Your task to perform on an android device: change notification settings in the gmail app Image 0: 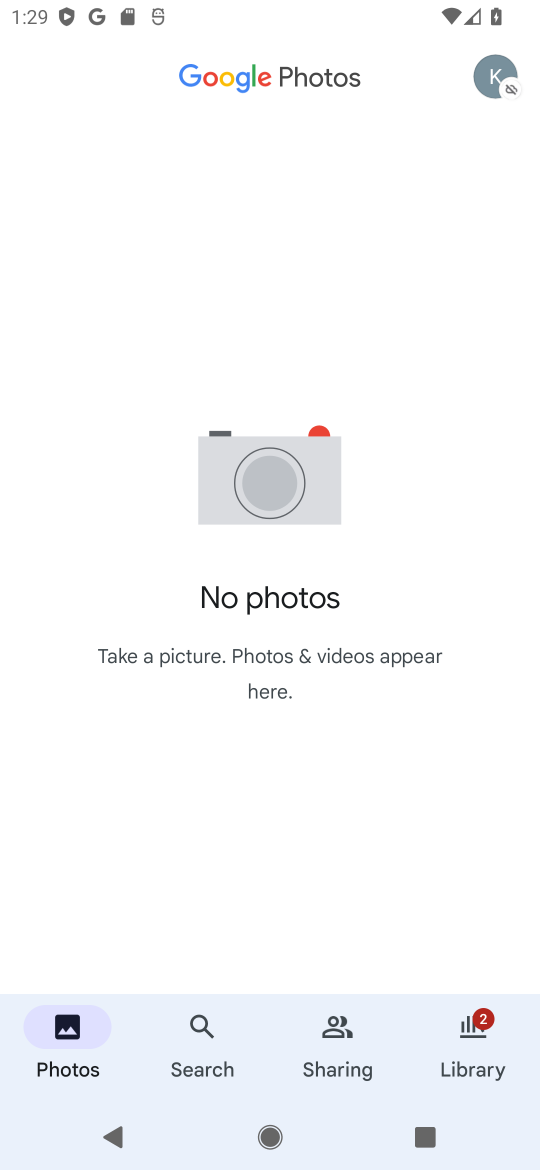
Step 0: press home button
Your task to perform on an android device: change notification settings in the gmail app Image 1: 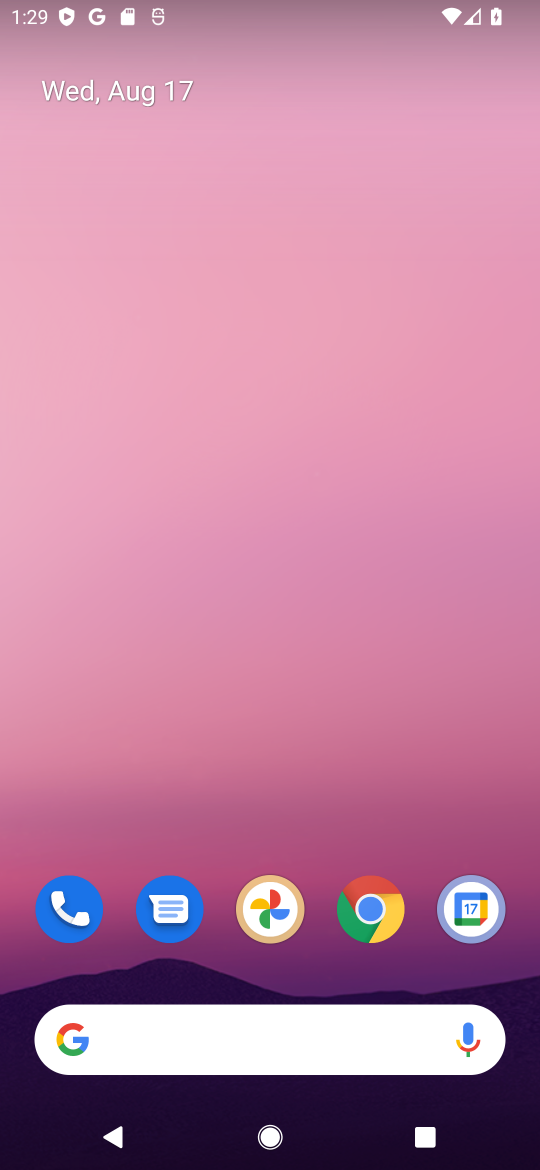
Step 1: drag from (335, 821) to (267, 171)
Your task to perform on an android device: change notification settings in the gmail app Image 2: 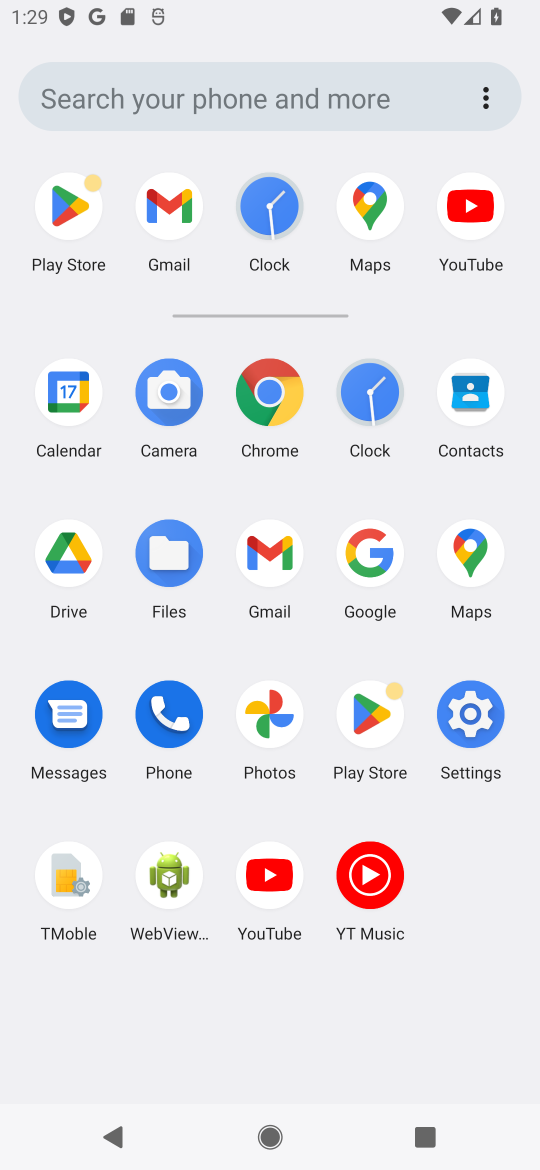
Step 2: click (167, 213)
Your task to perform on an android device: change notification settings in the gmail app Image 3: 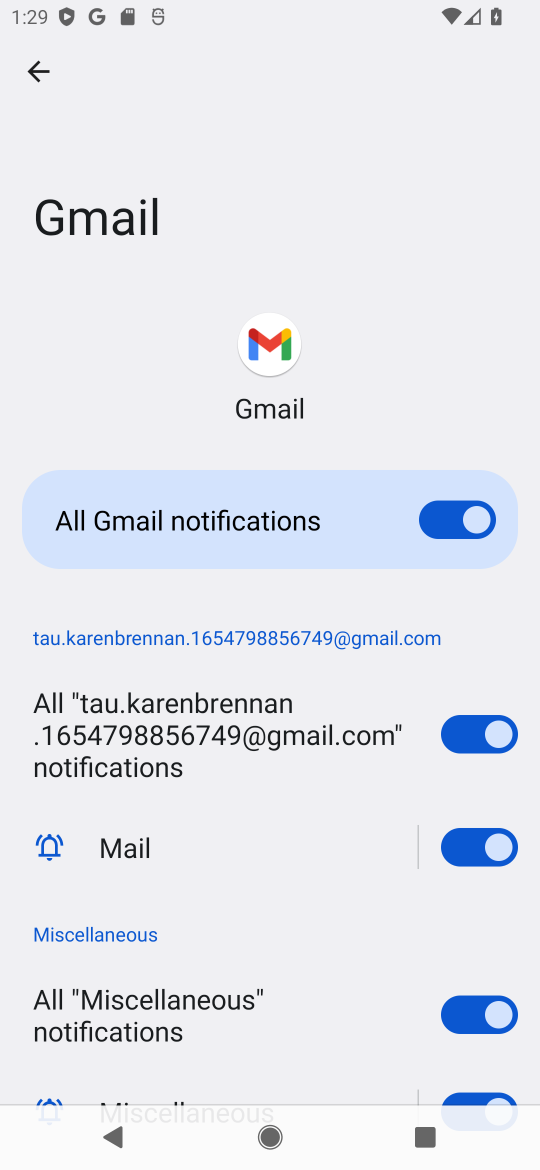
Step 3: click (477, 516)
Your task to perform on an android device: change notification settings in the gmail app Image 4: 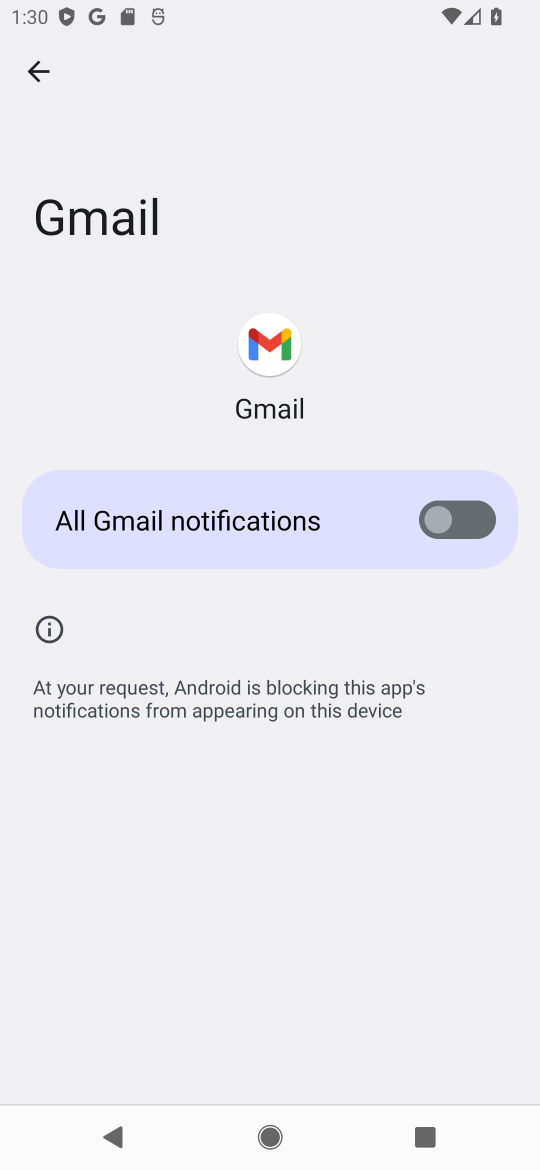
Step 4: task complete